Your task to perform on an android device: choose inbox layout in the gmail app Image 0: 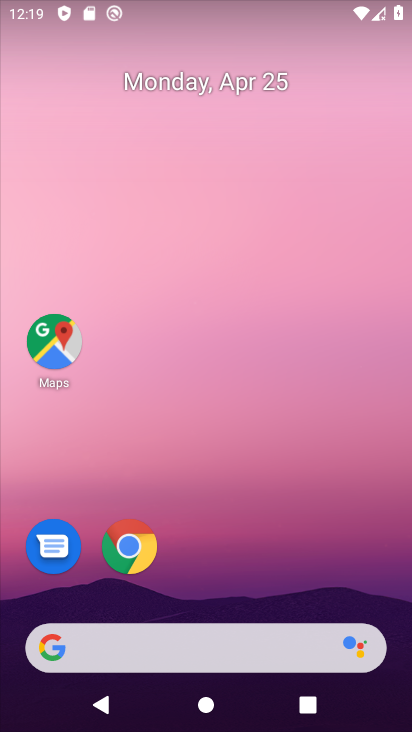
Step 0: drag from (177, 604) to (263, 90)
Your task to perform on an android device: choose inbox layout in the gmail app Image 1: 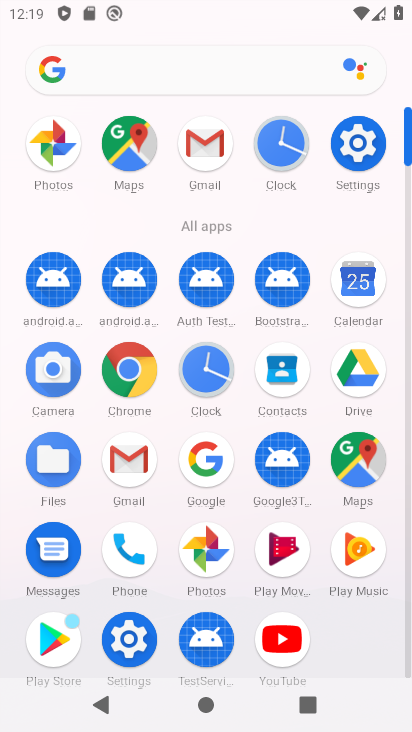
Step 1: click (215, 132)
Your task to perform on an android device: choose inbox layout in the gmail app Image 2: 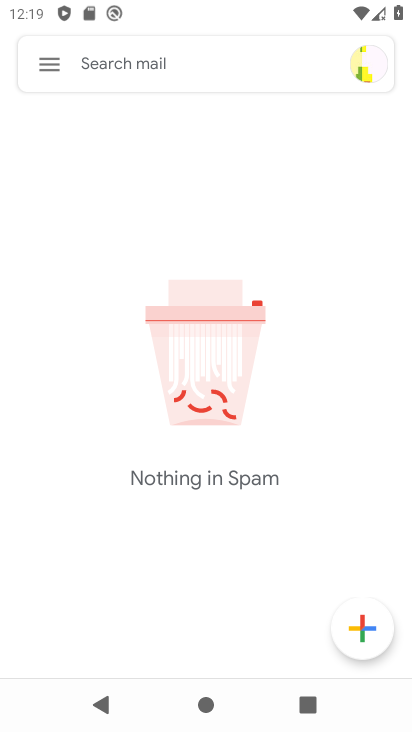
Step 2: click (43, 60)
Your task to perform on an android device: choose inbox layout in the gmail app Image 3: 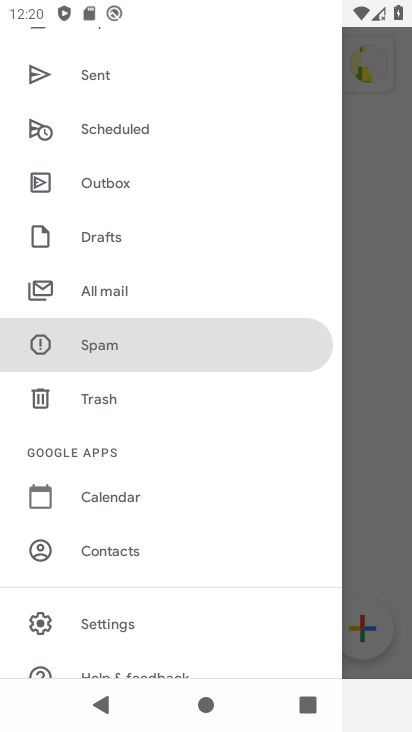
Step 3: click (118, 610)
Your task to perform on an android device: choose inbox layout in the gmail app Image 4: 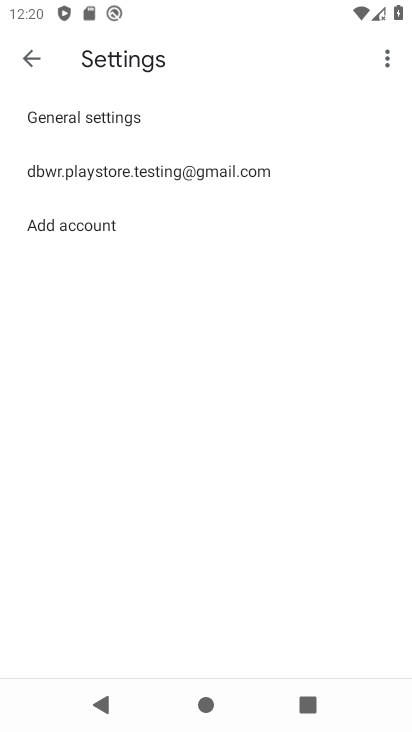
Step 4: click (142, 161)
Your task to perform on an android device: choose inbox layout in the gmail app Image 5: 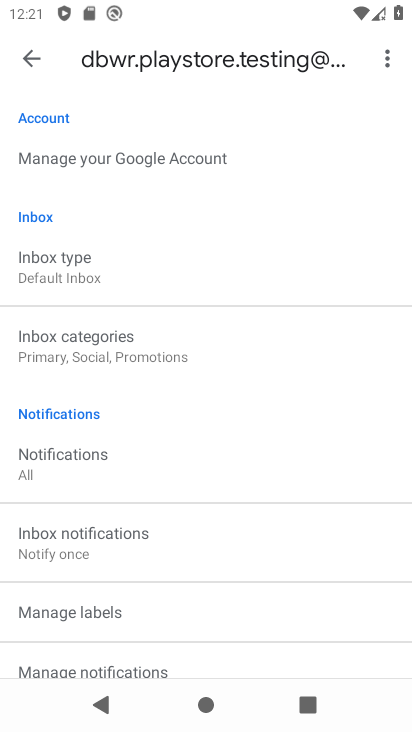
Step 5: click (155, 286)
Your task to perform on an android device: choose inbox layout in the gmail app Image 6: 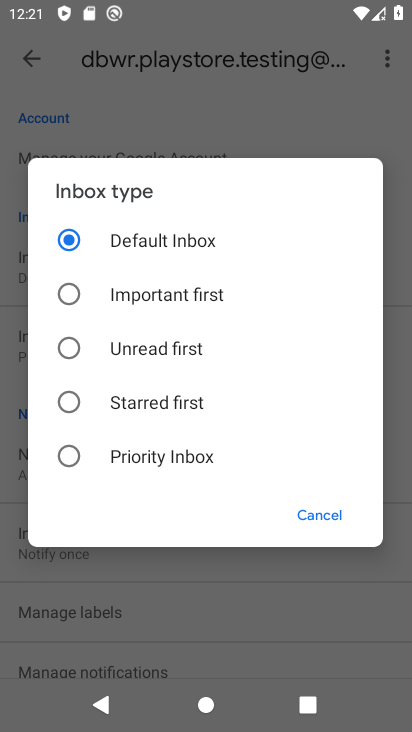
Step 6: click (128, 447)
Your task to perform on an android device: choose inbox layout in the gmail app Image 7: 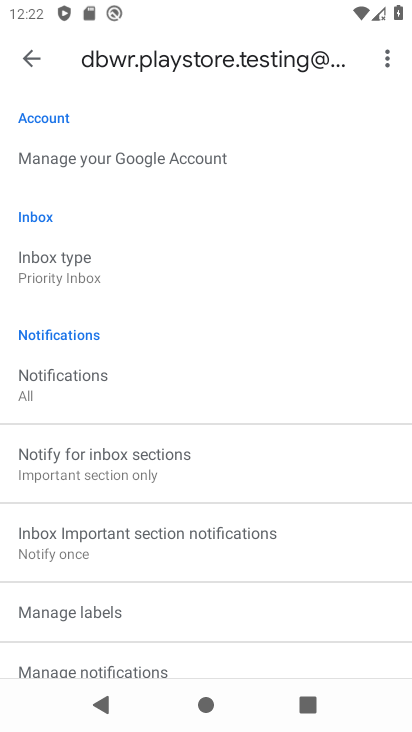
Step 7: drag from (180, 662) to (120, 74)
Your task to perform on an android device: choose inbox layout in the gmail app Image 8: 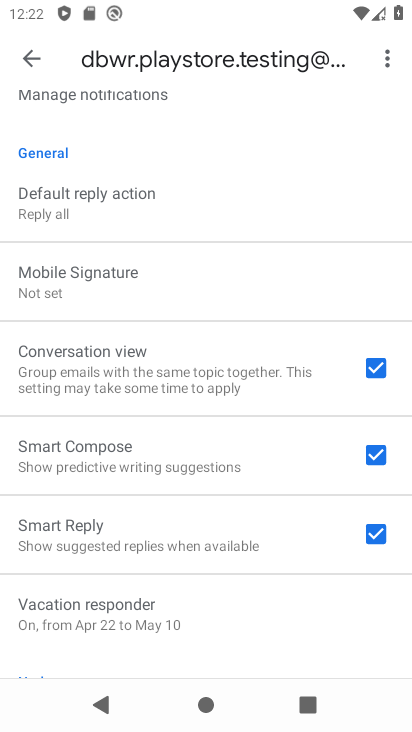
Step 8: drag from (121, 559) to (134, 249)
Your task to perform on an android device: choose inbox layout in the gmail app Image 9: 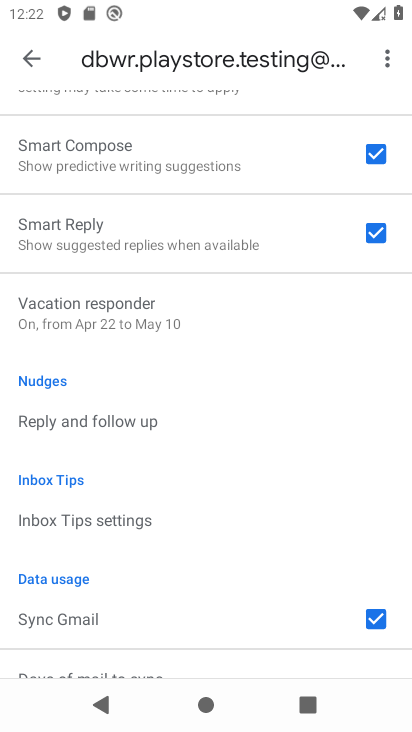
Step 9: drag from (62, 645) to (71, 197)
Your task to perform on an android device: choose inbox layout in the gmail app Image 10: 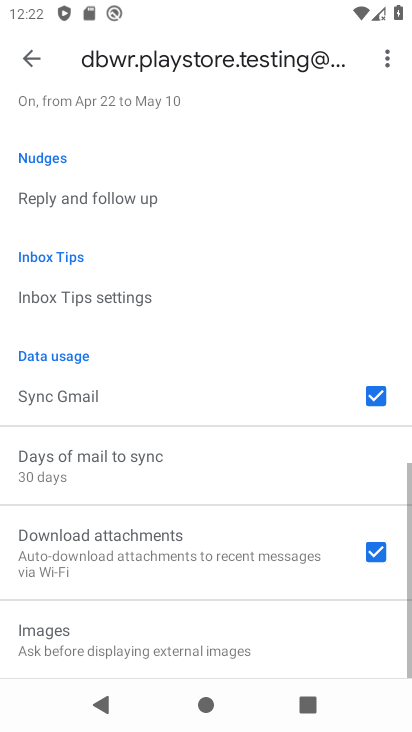
Step 10: drag from (125, 631) to (155, 152)
Your task to perform on an android device: choose inbox layout in the gmail app Image 11: 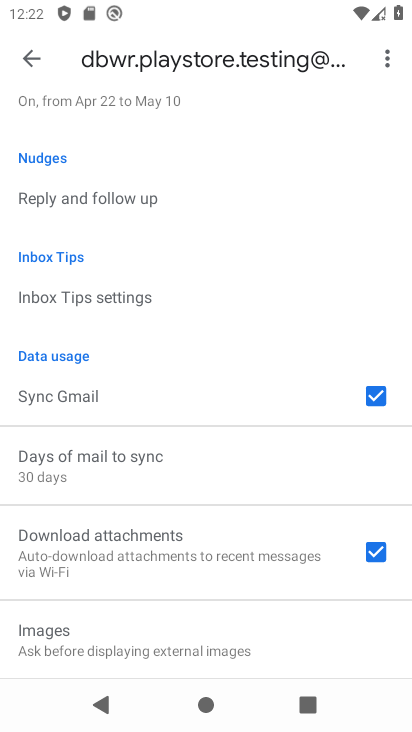
Step 11: drag from (118, 619) to (147, 148)
Your task to perform on an android device: choose inbox layout in the gmail app Image 12: 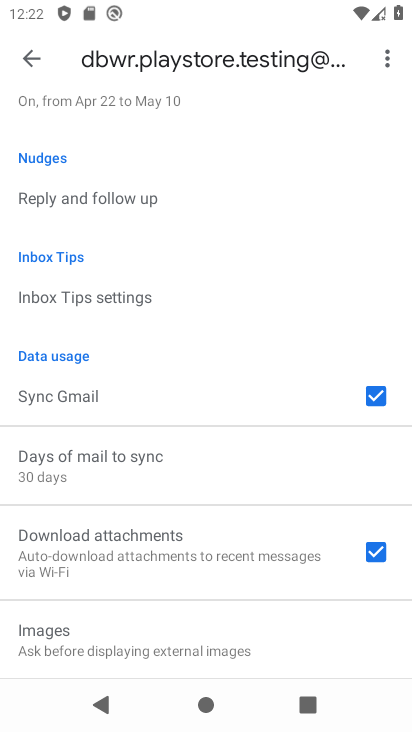
Step 12: drag from (121, 635) to (114, 237)
Your task to perform on an android device: choose inbox layout in the gmail app Image 13: 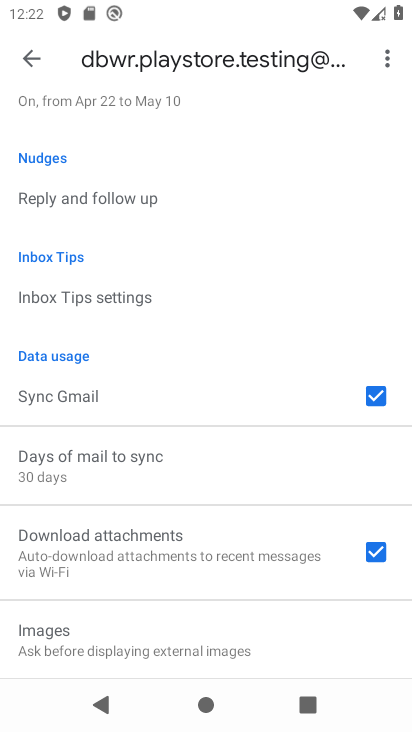
Step 13: drag from (181, 643) to (181, 260)
Your task to perform on an android device: choose inbox layout in the gmail app Image 14: 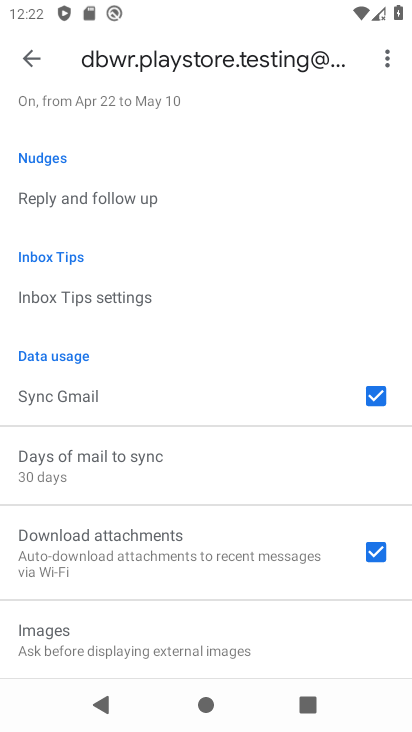
Step 14: drag from (181, 260) to (164, 591)
Your task to perform on an android device: choose inbox layout in the gmail app Image 15: 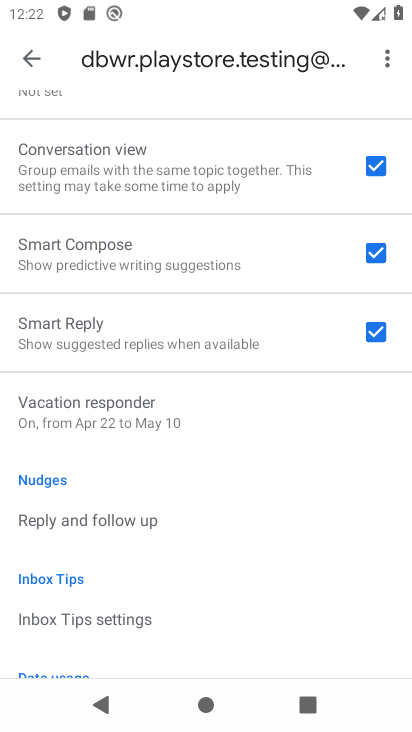
Step 15: drag from (189, 259) to (191, 723)
Your task to perform on an android device: choose inbox layout in the gmail app Image 16: 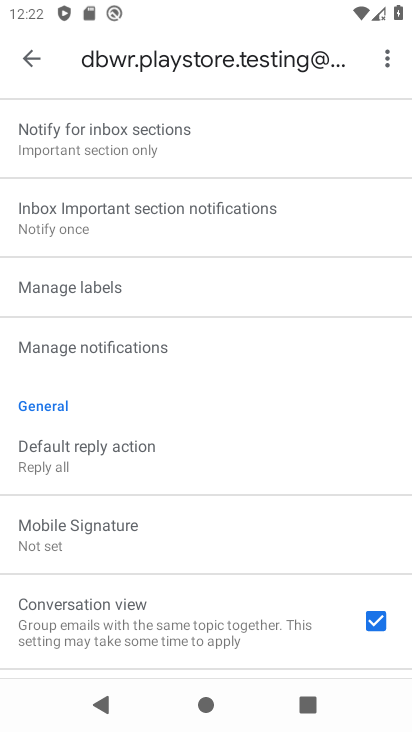
Step 16: drag from (161, 145) to (160, 557)
Your task to perform on an android device: choose inbox layout in the gmail app Image 17: 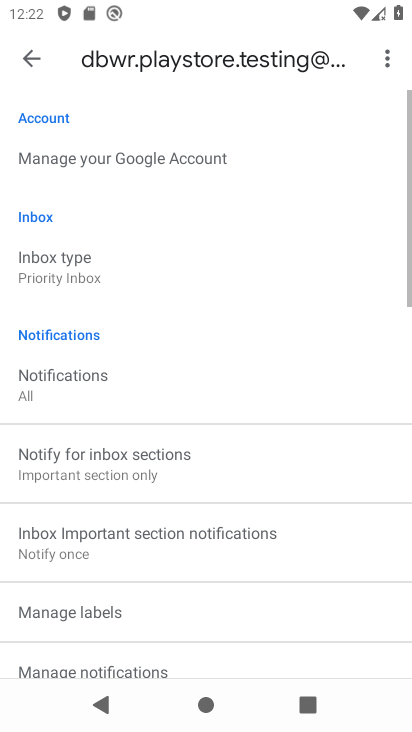
Step 17: drag from (104, 185) to (123, 489)
Your task to perform on an android device: choose inbox layout in the gmail app Image 18: 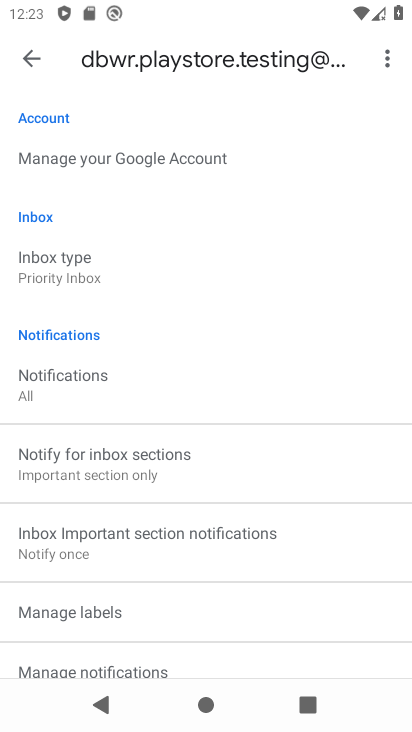
Step 18: drag from (86, 519) to (127, 215)
Your task to perform on an android device: choose inbox layout in the gmail app Image 19: 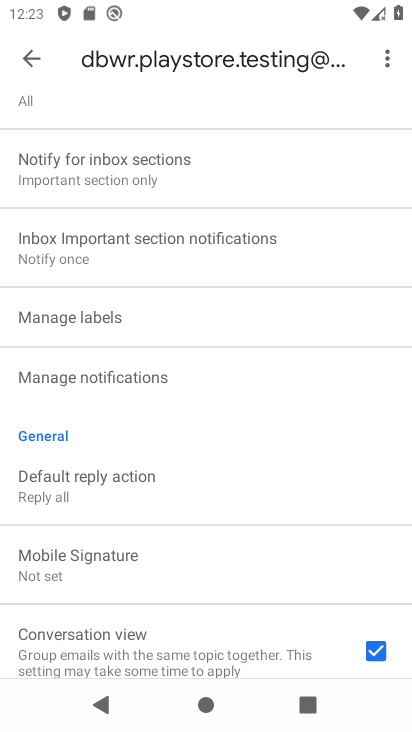
Step 19: drag from (213, 490) to (206, 144)
Your task to perform on an android device: choose inbox layout in the gmail app Image 20: 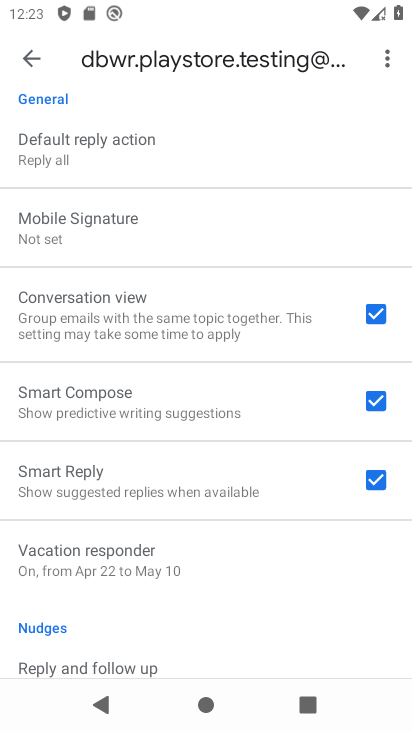
Step 20: drag from (253, 637) to (254, 131)
Your task to perform on an android device: choose inbox layout in the gmail app Image 21: 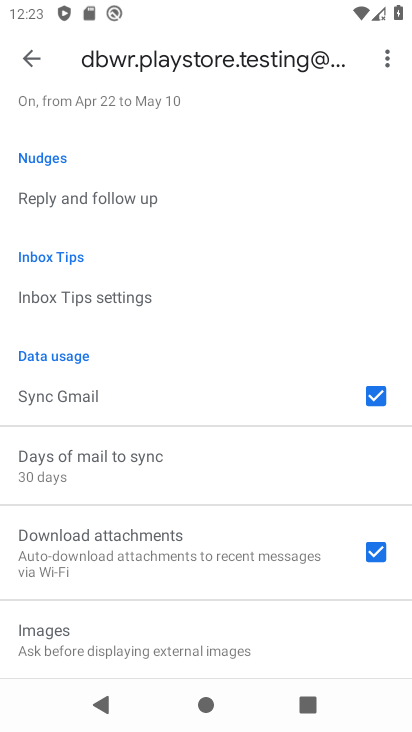
Step 21: drag from (152, 117) to (153, 607)
Your task to perform on an android device: choose inbox layout in the gmail app Image 22: 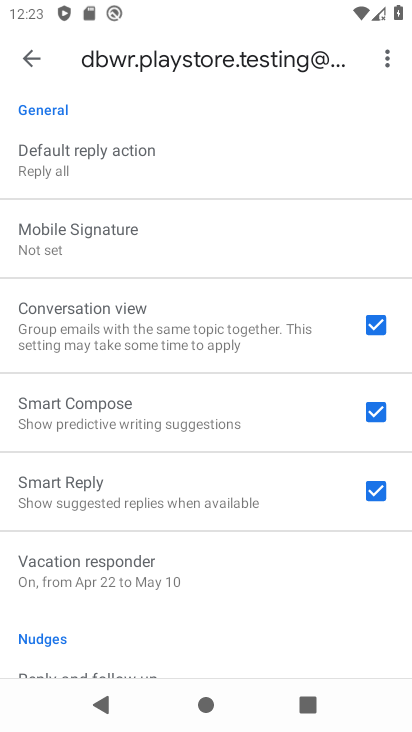
Step 22: drag from (121, 198) to (142, 586)
Your task to perform on an android device: choose inbox layout in the gmail app Image 23: 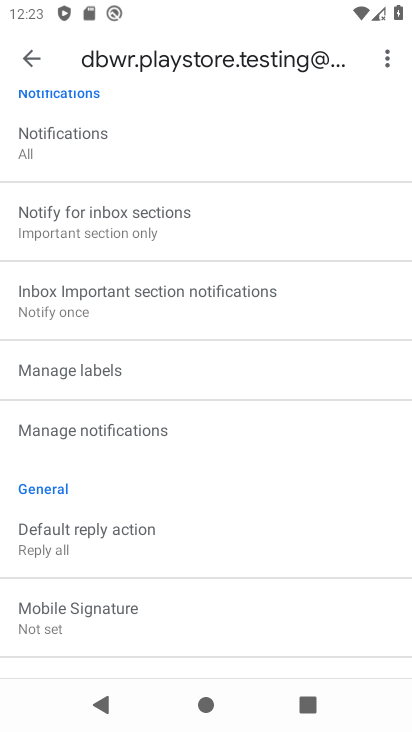
Step 23: drag from (120, 160) to (147, 565)
Your task to perform on an android device: choose inbox layout in the gmail app Image 24: 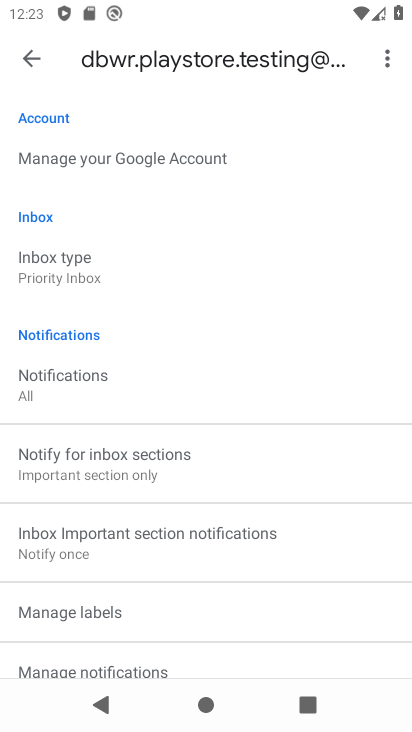
Step 24: click (106, 274)
Your task to perform on an android device: choose inbox layout in the gmail app Image 25: 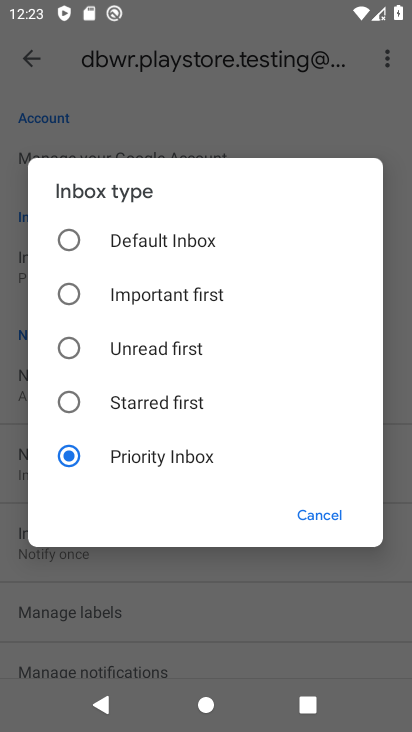
Step 25: click (215, 383)
Your task to perform on an android device: choose inbox layout in the gmail app Image 26: 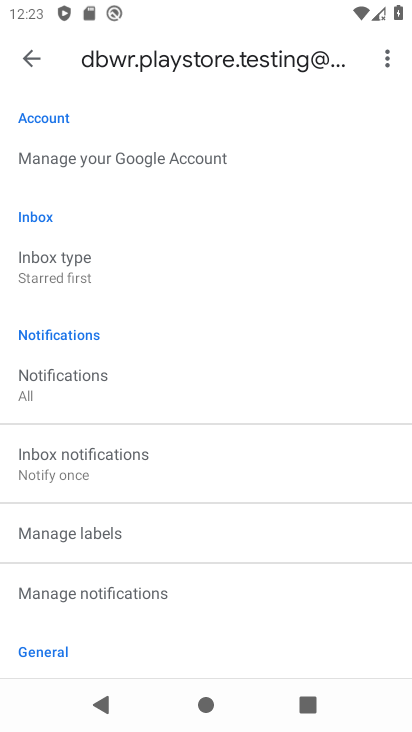
Step 26: task complete